Your task to perform on an android device: open app "LinkedIn" Image 0: 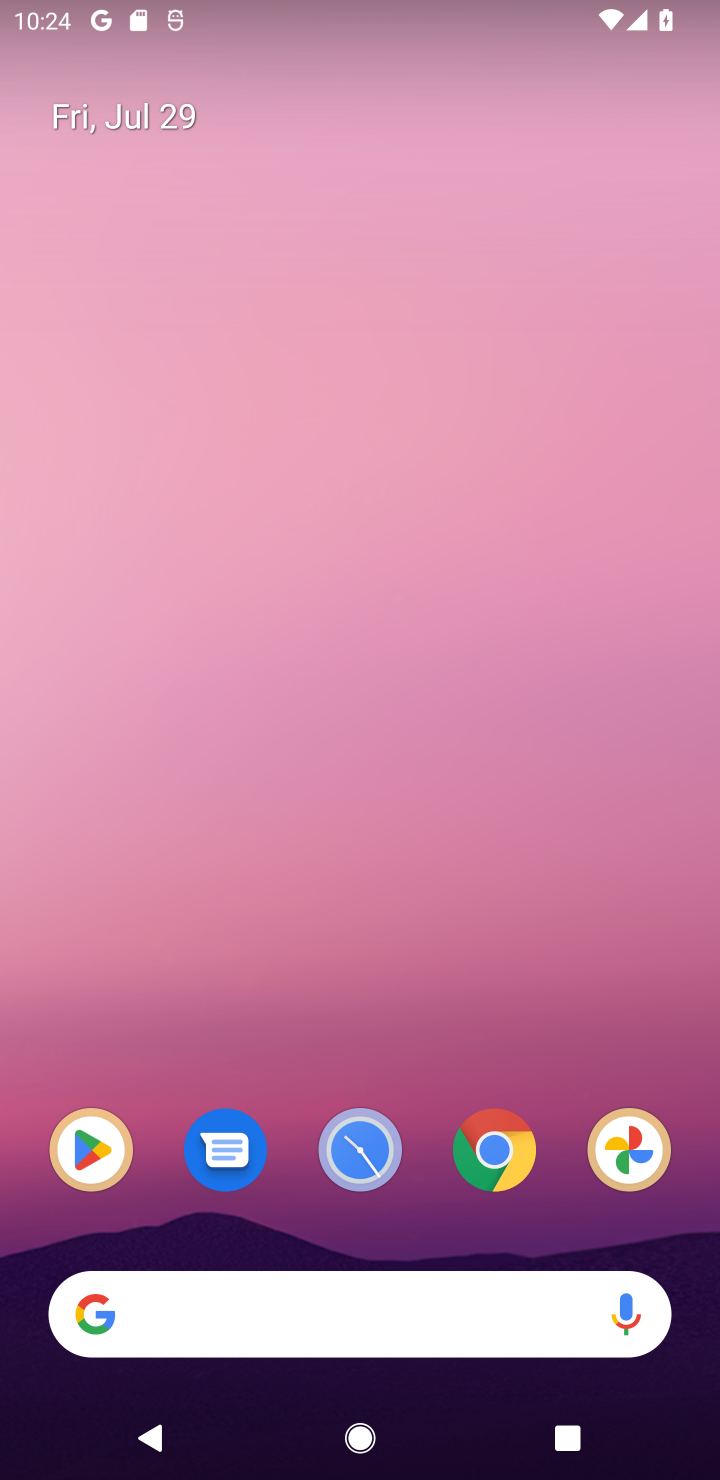
Step 0: click (88, 1153)
Your task to perform on an android device: open app "LinkedIn" Image 1: 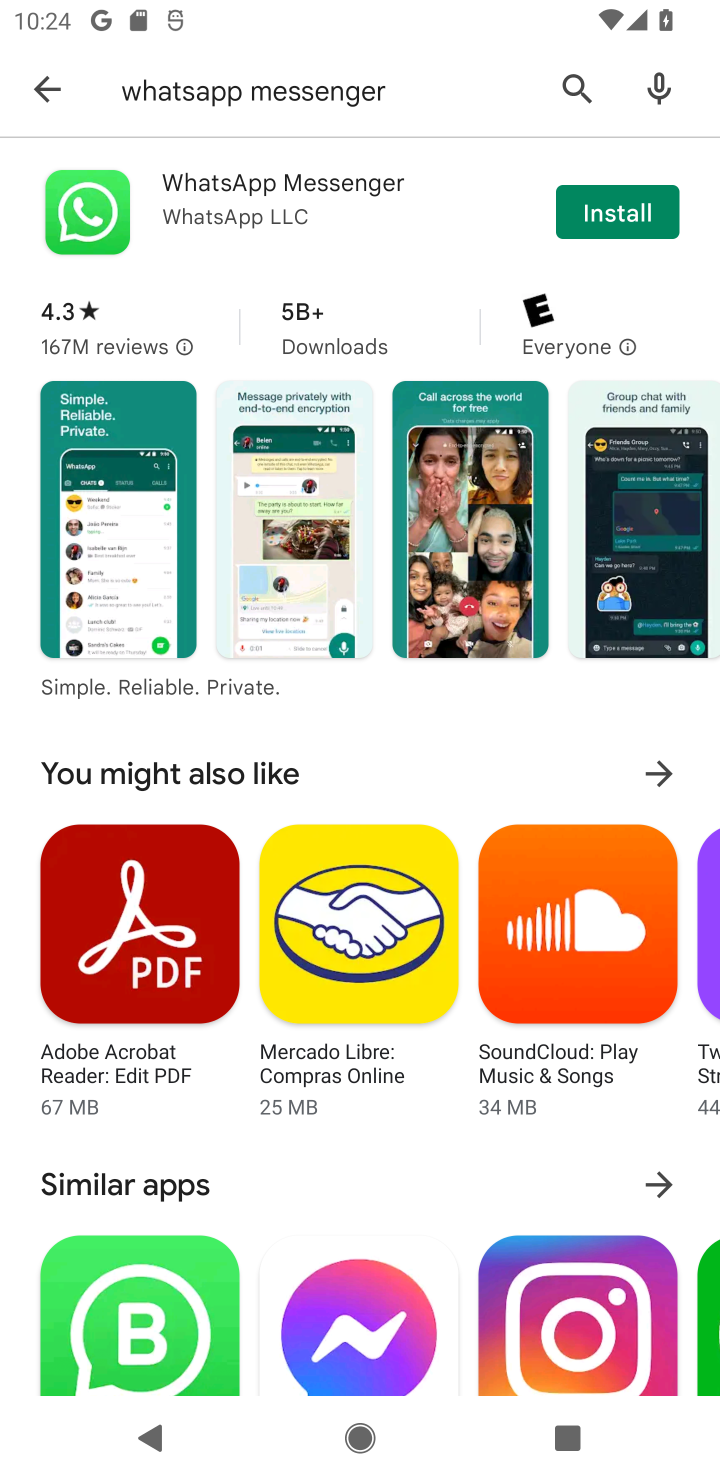
Step 1: click (583, 70)
Your task to perform on an android device: open app "LinkedIn" Image 2: 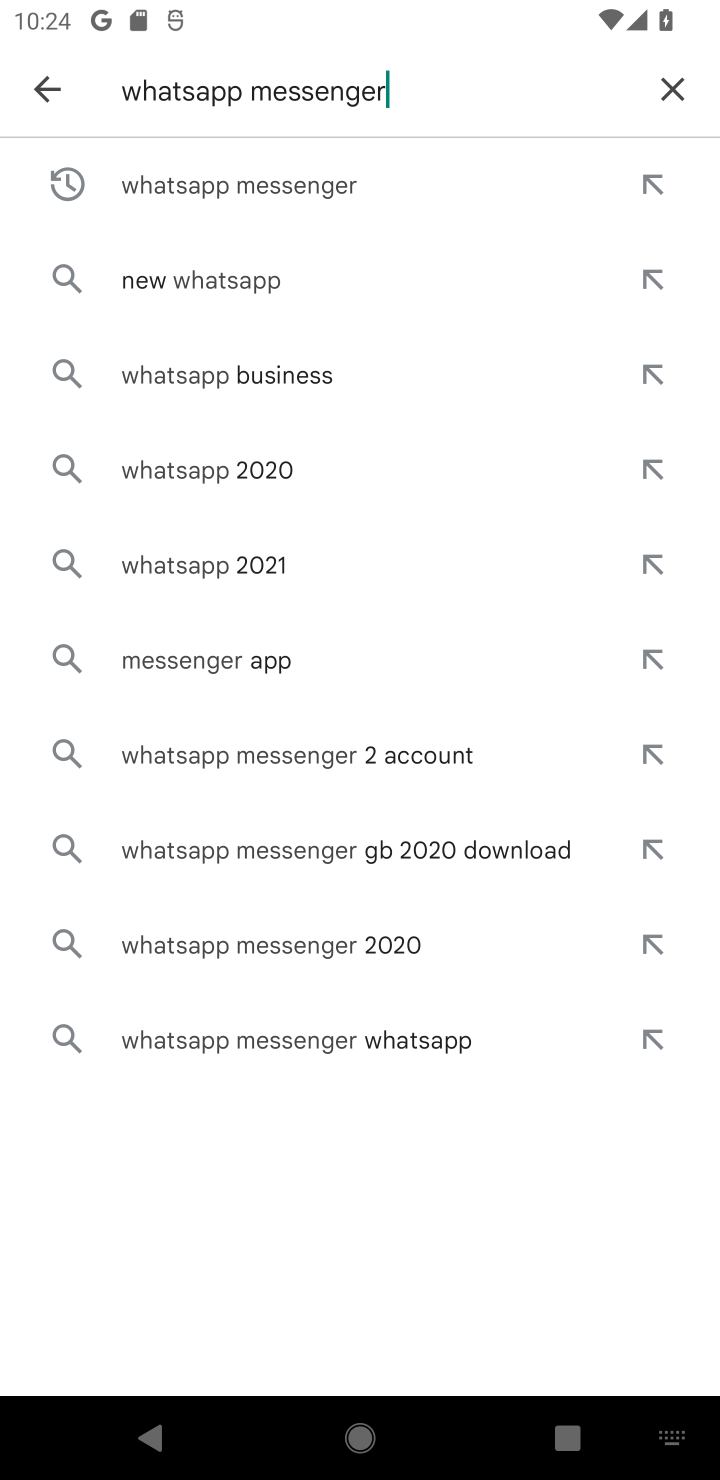
Step 2: click (682, 91)
Your task to perform on an android device: open app "LinkedIn" Image 3: 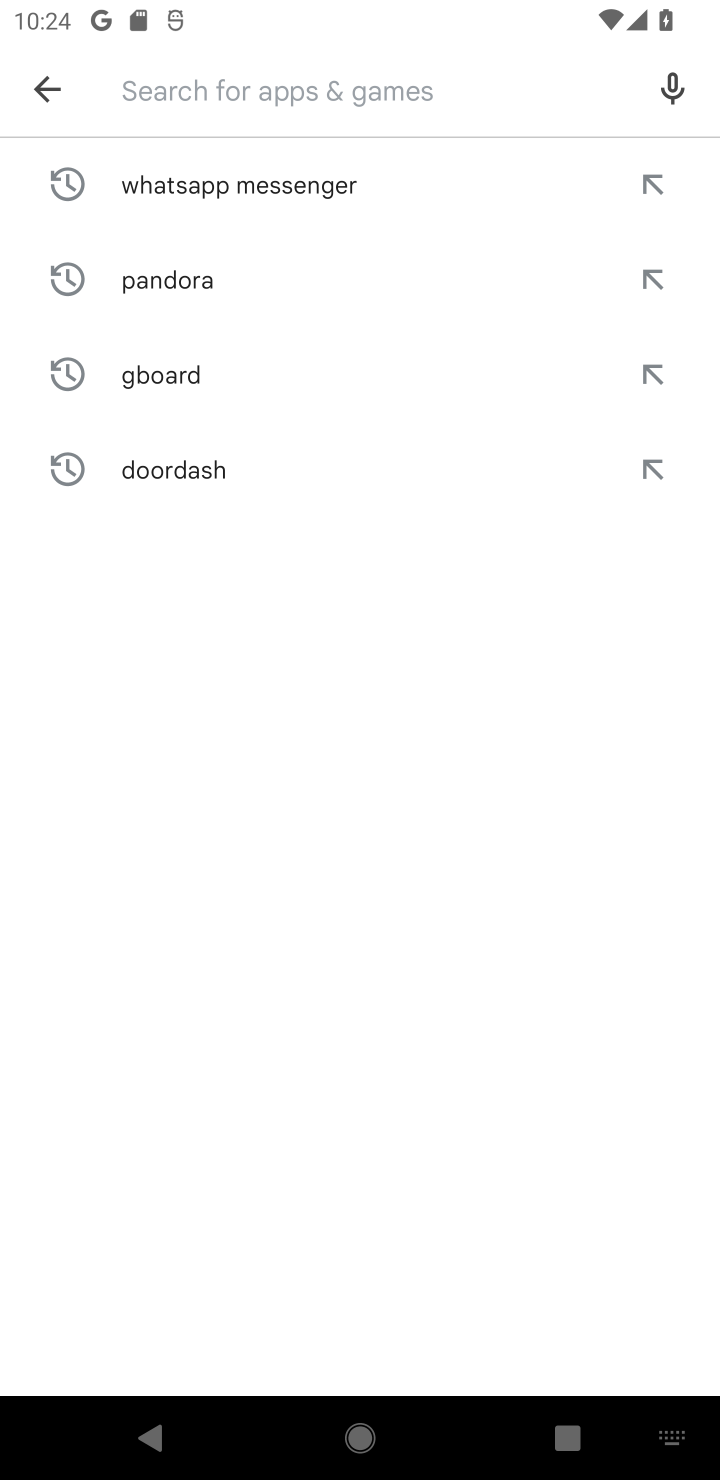
Step 3: click (403, 84)
Your task to perform on an android device: open app "LinkedIn" Image 4: 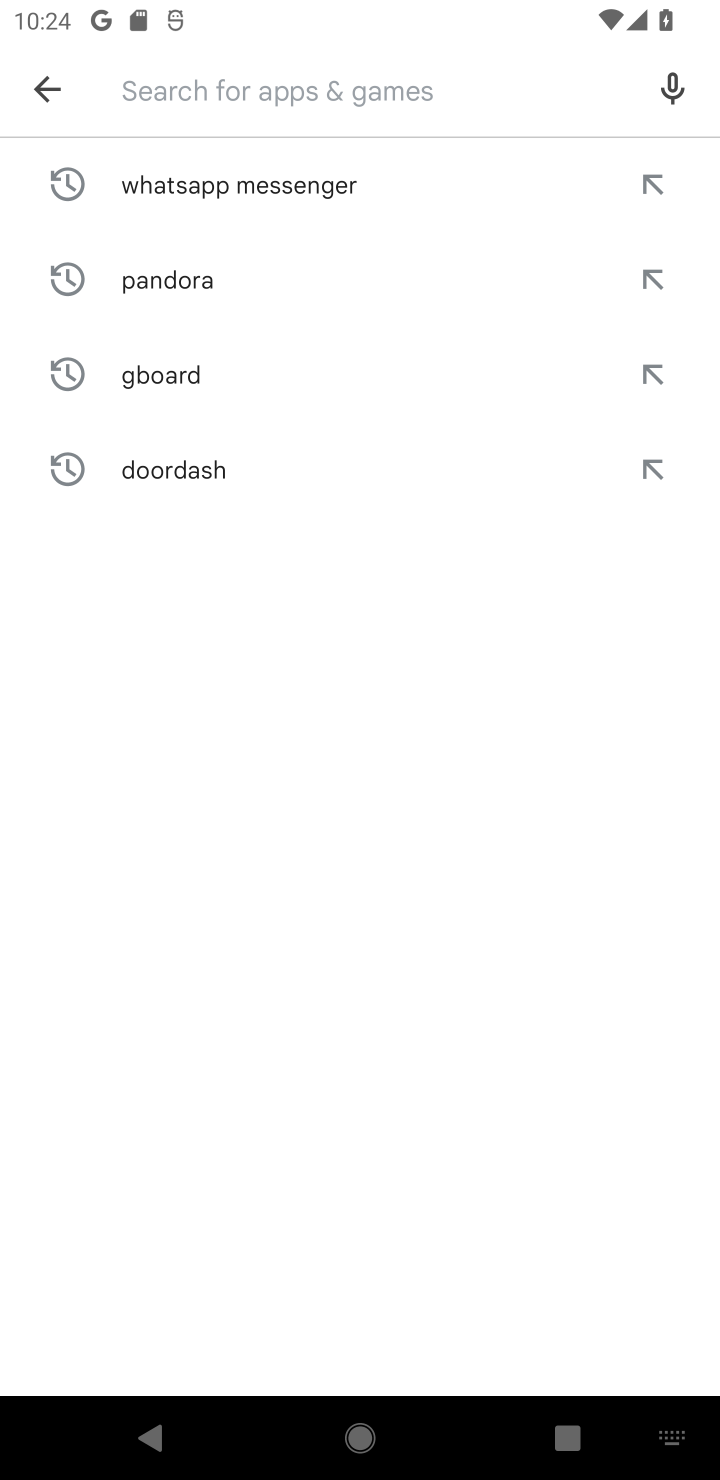
Step 4: type "linkedln"
Your task to perform on an android device: open app "LinkedIn" Image 5: 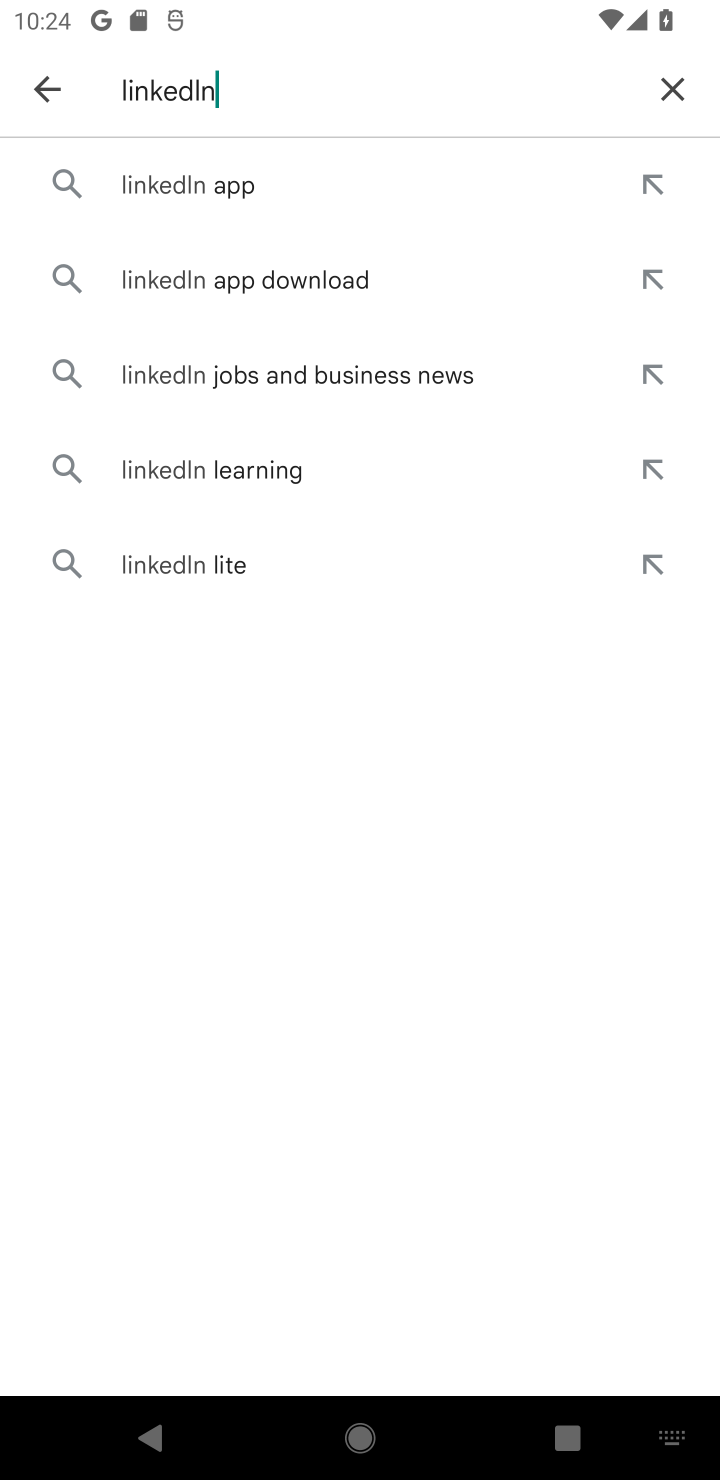
Step 5: click (286, 179)
Your task to perform on an android device: open app "LinkedIn" Image 6: 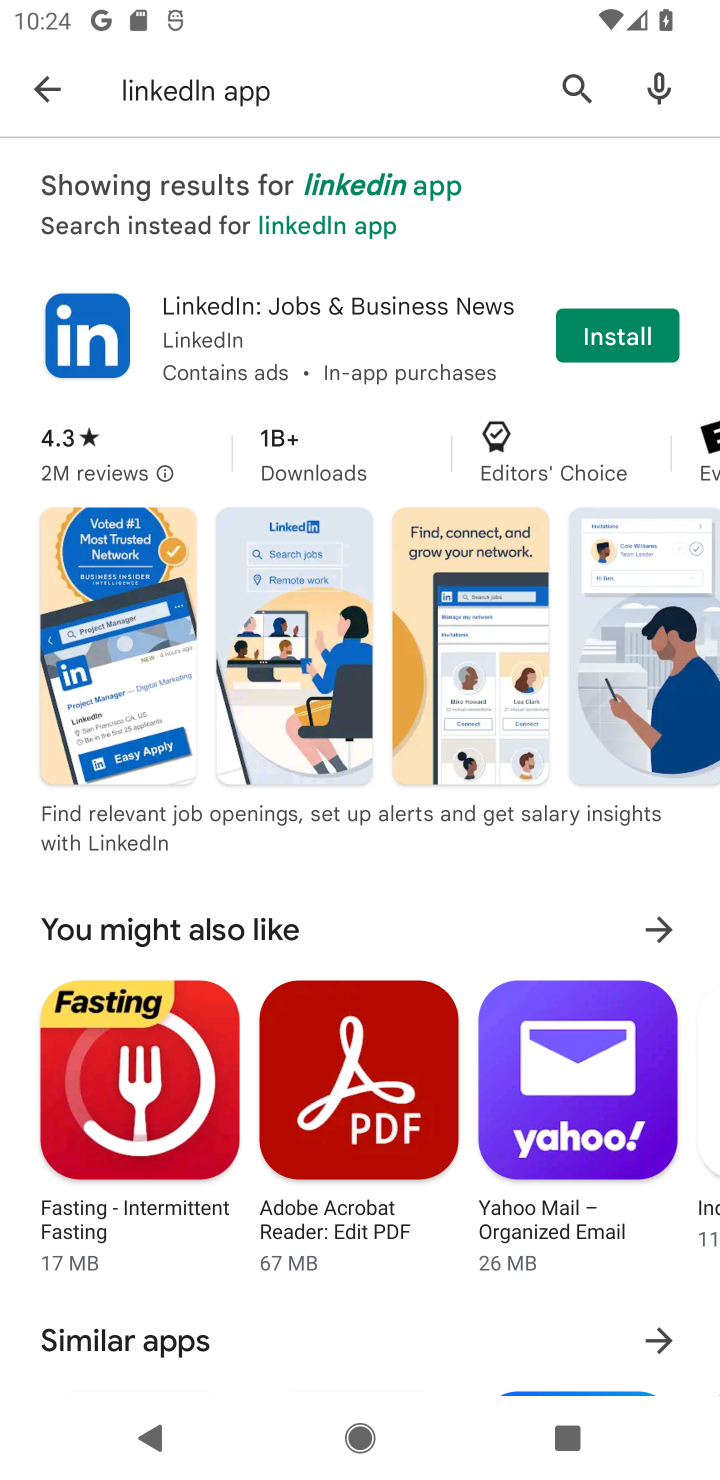
Step 6: click (568, 335)
Your task to perform on an android device: open app "LinkedIn" Image 7: 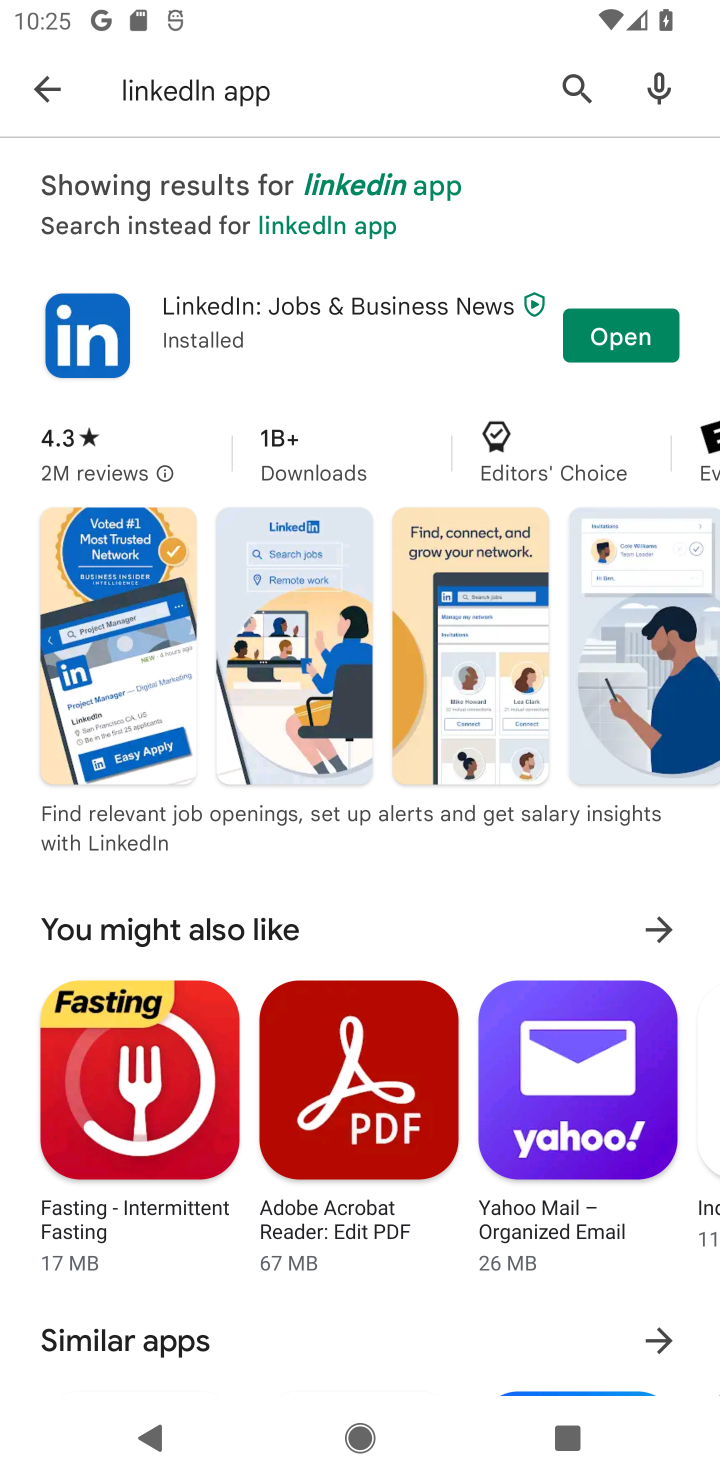
Step 7: click (629, 320)
Your task to perform on an android device: open app "LinkedIn" Image 8: 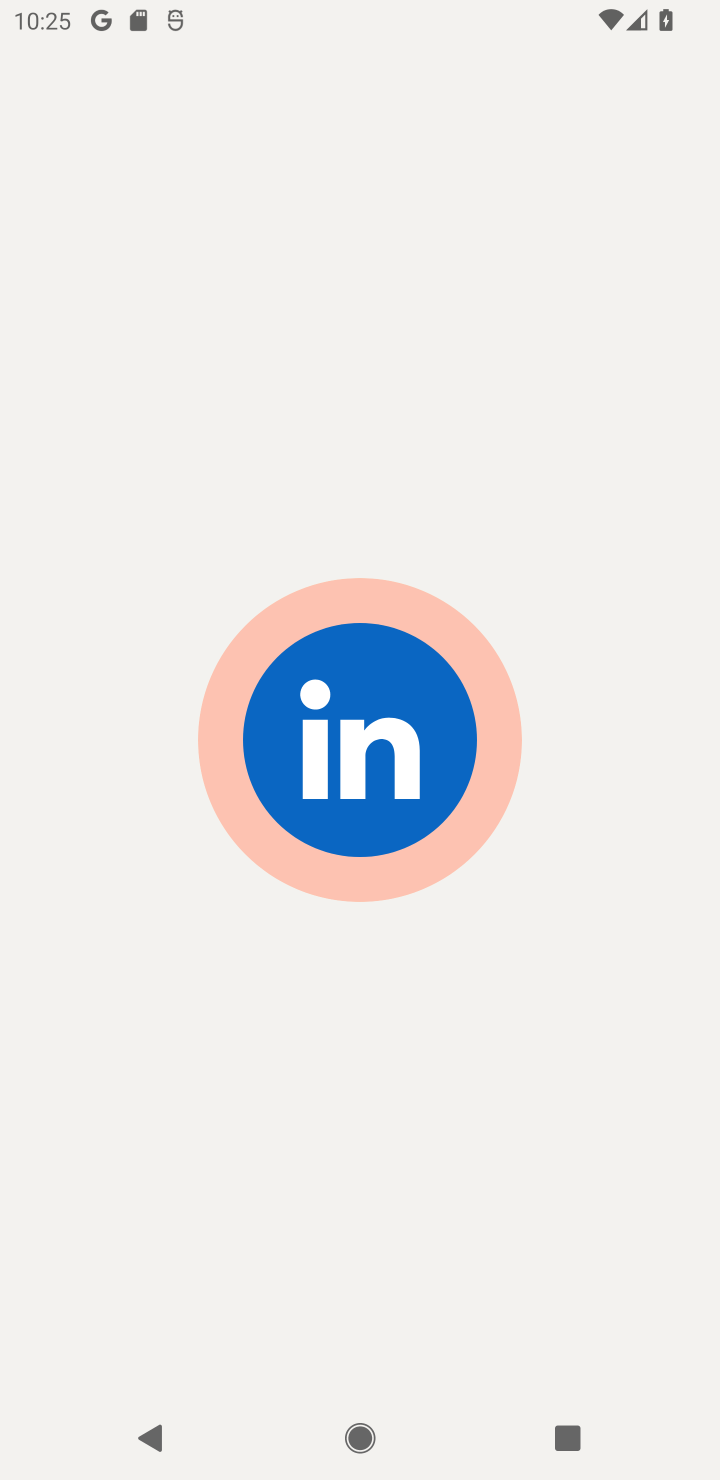
Step 8: click (629, 318)
Your task to perform on an android device: open app "LinkedIn" Image 9: 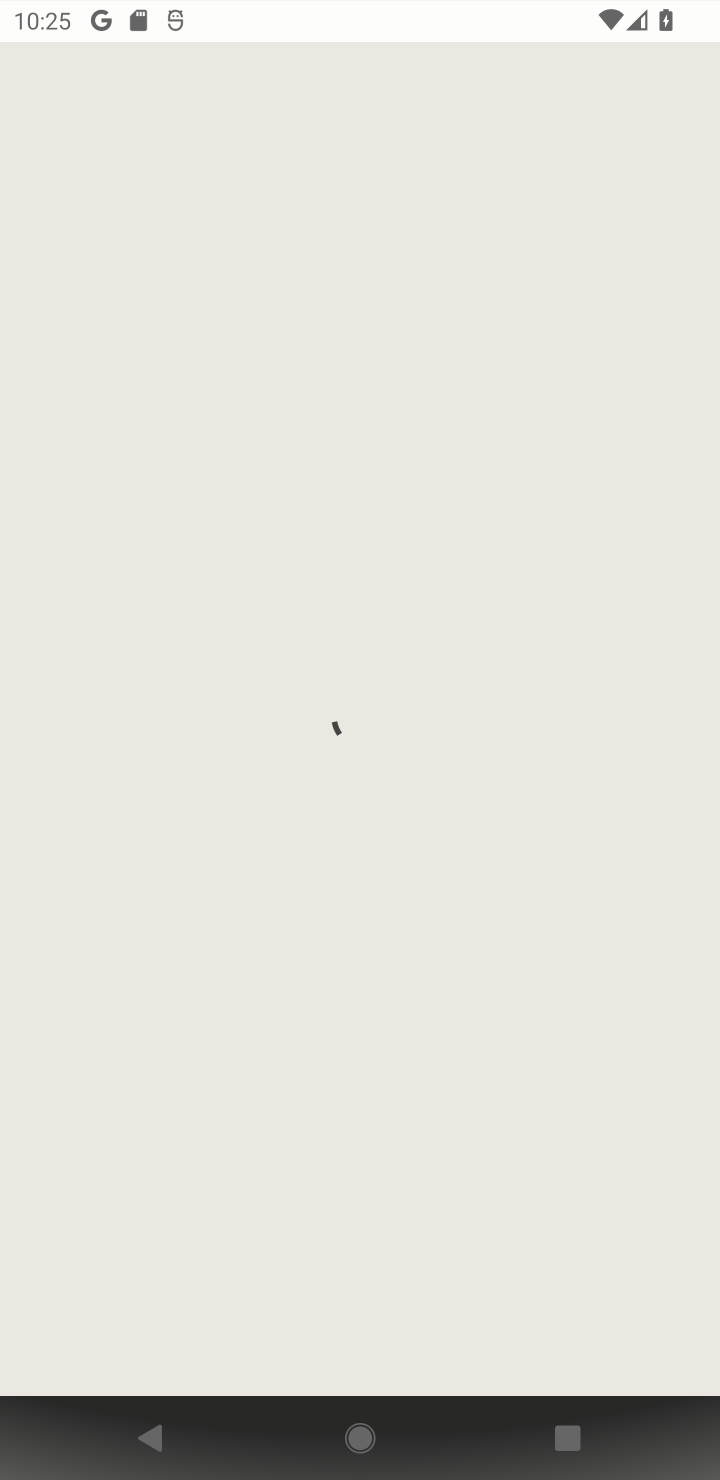
Step 9: task complete